Your task to perform on an android device: Go to privacy settings Image 0: 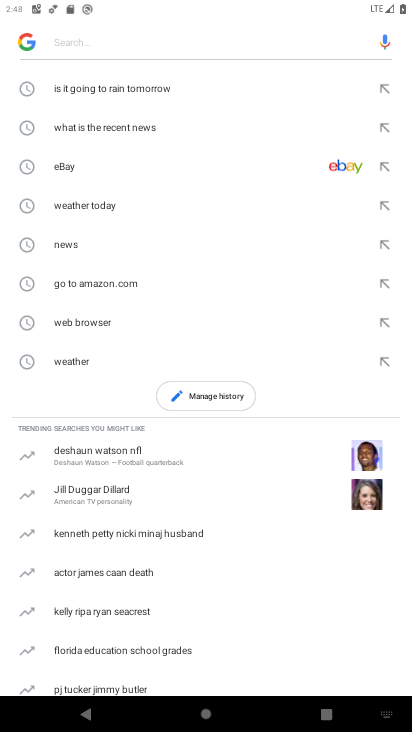
Step 0: press home button
Your task to perform on an android device: Go to privacy settings Image 1: 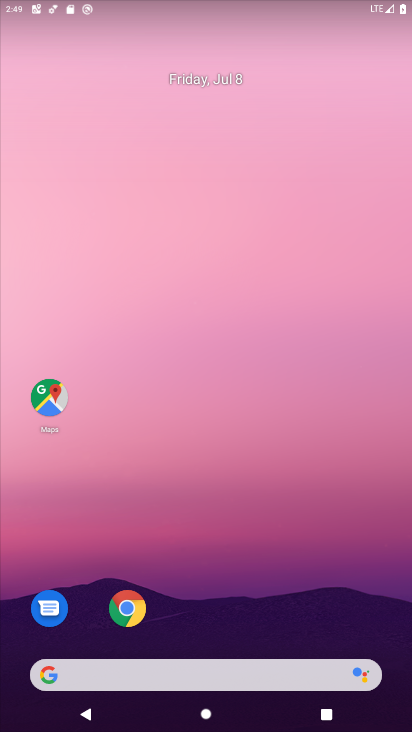
Step 1: drag from (171, 550) to (178, 190)
Your task to perform on an android device: Go to privacy settings Image 2: 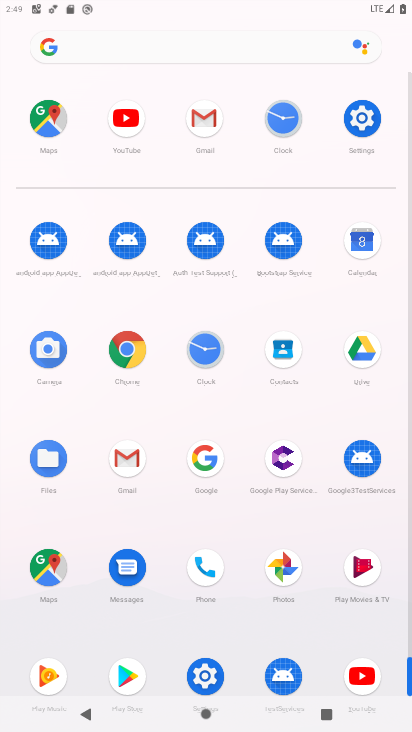
Step 2: click (349, 113)
Your task to perform on an android device: Go to privacy settings Image 3: 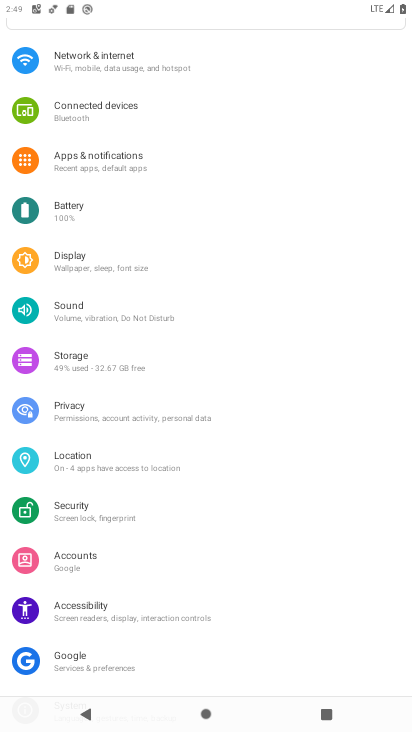
Step 3: click (87, 411)
Your task to perform on an android device: Go to privacy settings Image 4: 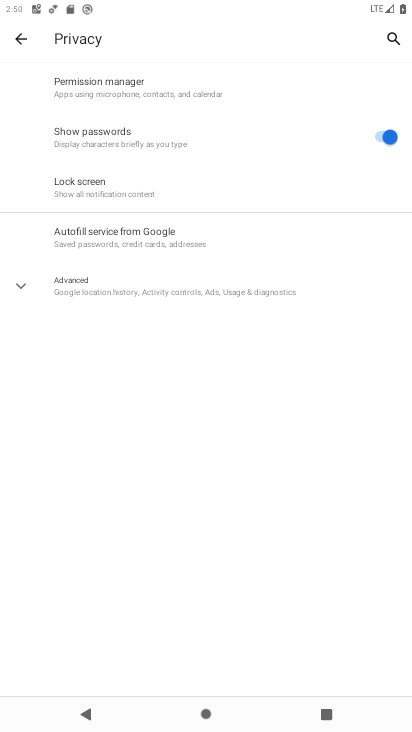
Step 4: task complete